Your task to perform on an android device: stop showing notifications on the lock screen Image 0: 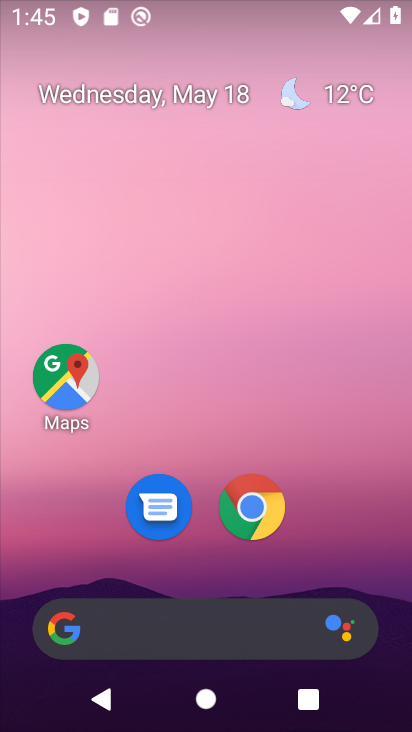
Step 0: click (324, 250)
Your task to perform on an android device: stop showing notifications on the lock screen Image 1: 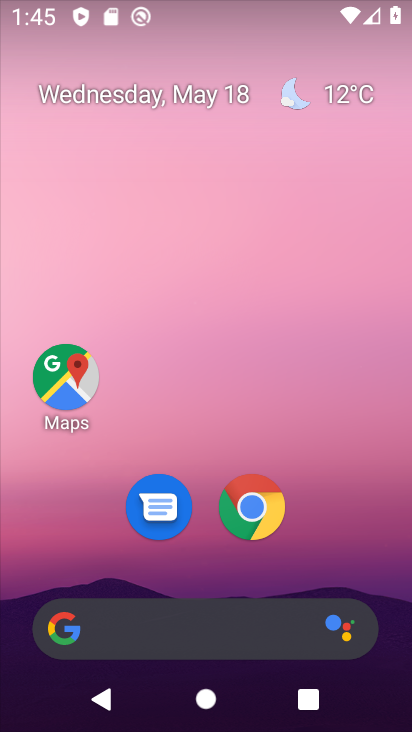
Step 1: click (286, 185)
Your task to perform on an android device: stop showing notifications on the lock screen Image 2: 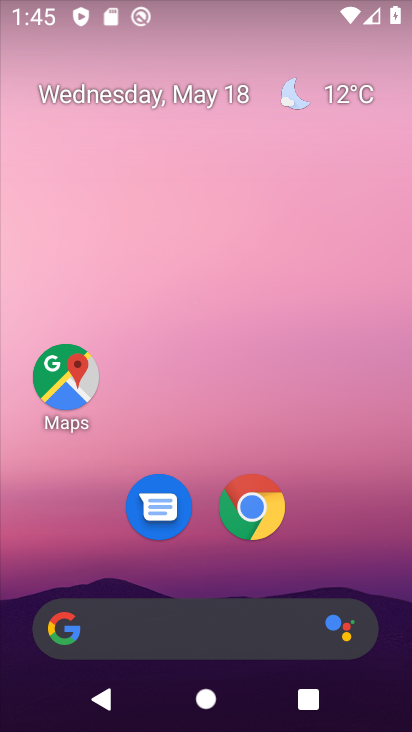
Step 2: drag from (408, 631) to (368, 190)
Your task to perform on an android device: stop showing notifications on the lock screen Image 3: 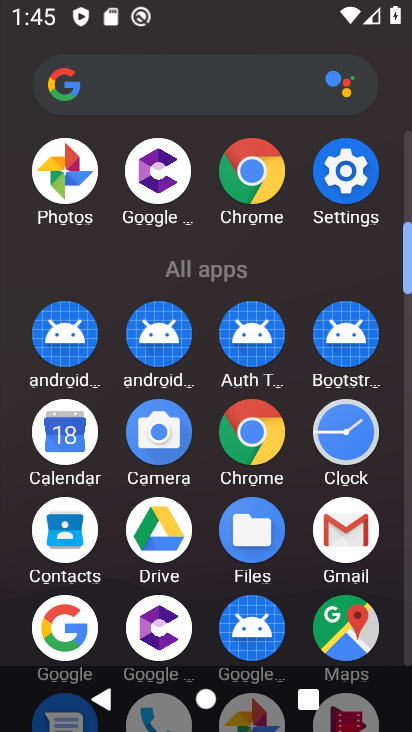
Step 3: click (347, 174)
Your task to perform on an android device: stop showing notifications on the lock screen Image 4: 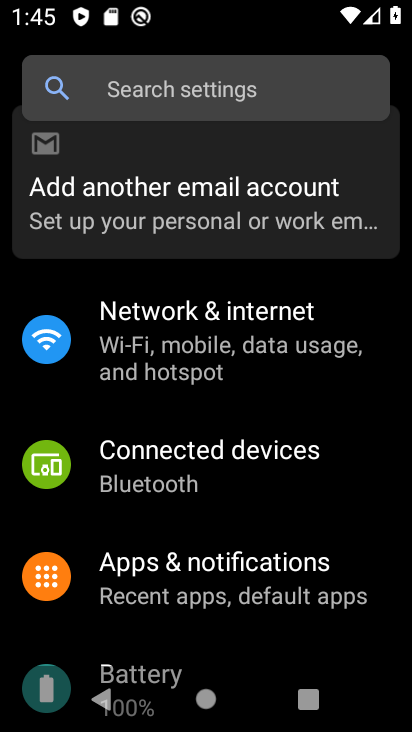
Step 4: drag from (375, 658) to (390, 338)
Your task to perform on an android device: stop showing notifications on the lock screen Image 5: 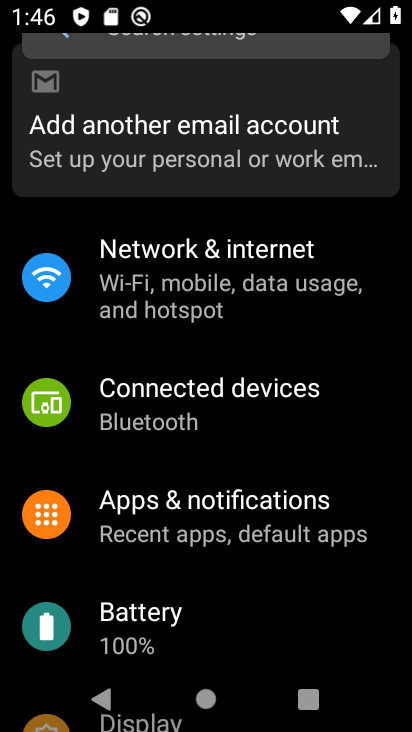
Step 5: drag from (363, 578) to (353, 346)
Your task to perform on an android device: stop showing notifications on the lock screen Image 6: 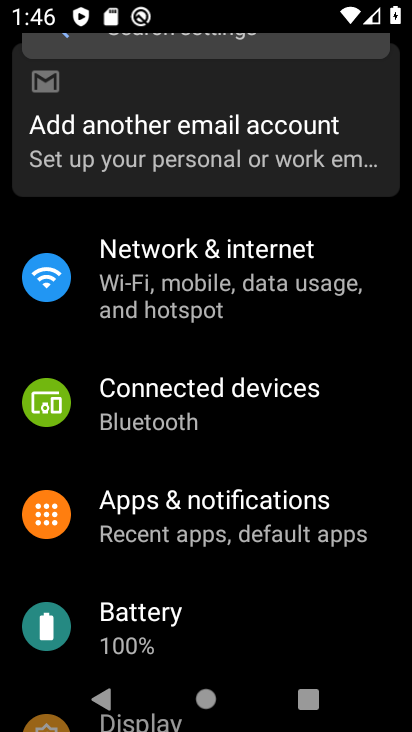
Step 6: drag from (365, 587) to (366, 332)
Your task to perform on an android device: stop showing notifications on the lock screen Image 7: 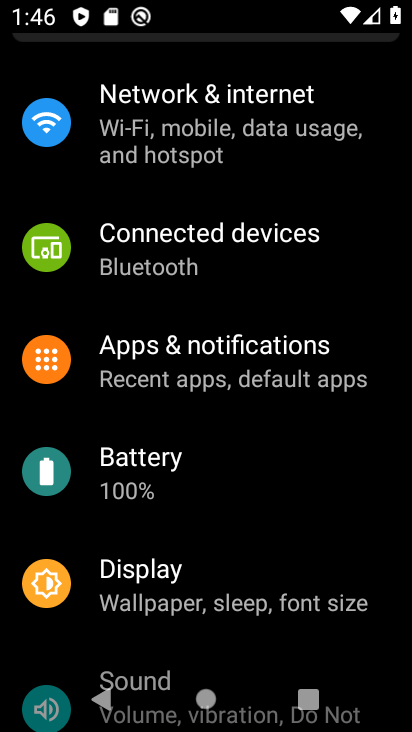
Step 7: drag from (371, 478) to (362, 350)
Your task to perform on an android device: stop showing notifications on the lock screen Image 8: 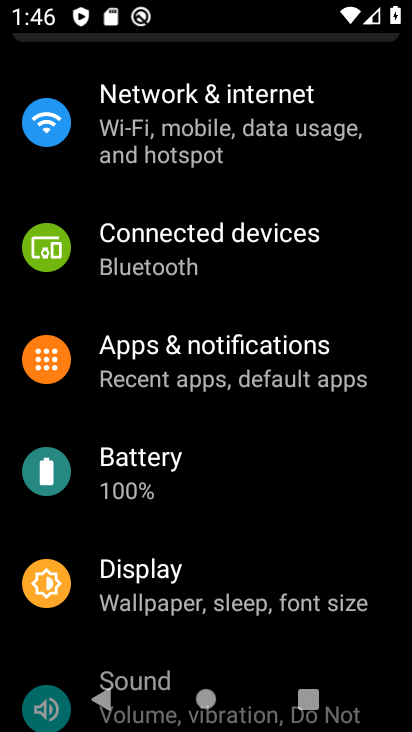
Step 8: drag from (380, 564) to (369, 346)
Your task to perform on an android device: stop showing notifications on the lock screen Image 9: 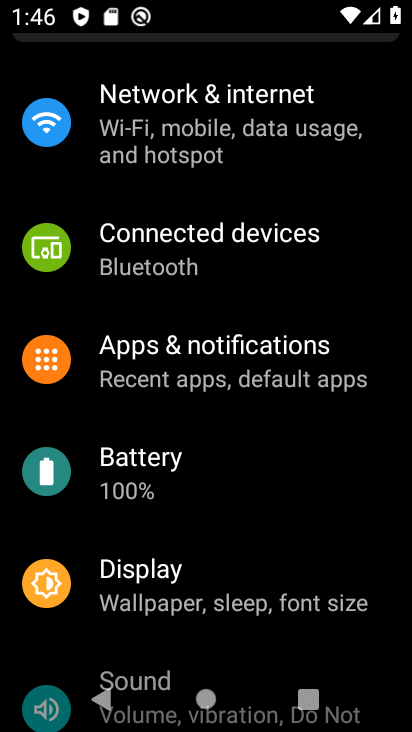
Step 9: drag from (387, 620) to (369, 307)
Your task to perform on an android device: stop showing notifications on the lock screen Image 10: 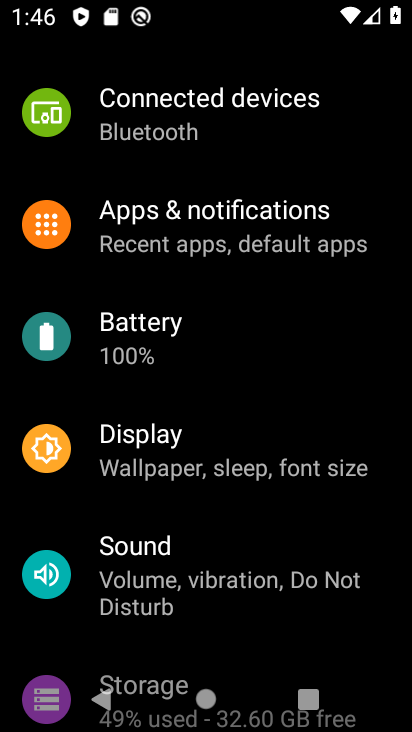
Step 10: drag from (378, 651) to (362, 338)
Your task to perform on an android device: stop showing notifications on the lock screen Image 11: 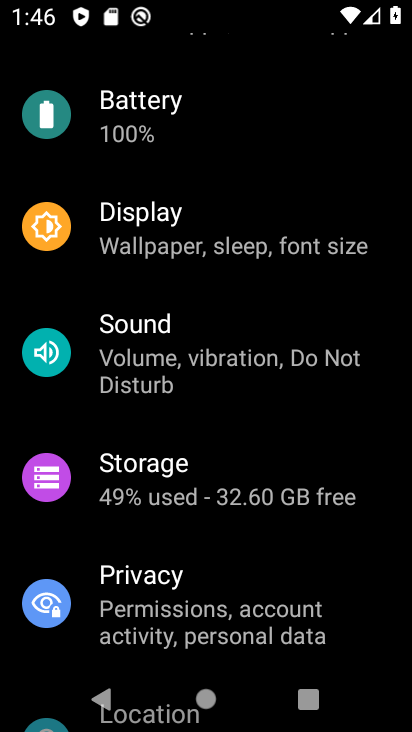
Step 11: drag from (353, 568) to (338, 268)
Your task to perform on an android device: stop showing notifications on the lock screen Image 12: 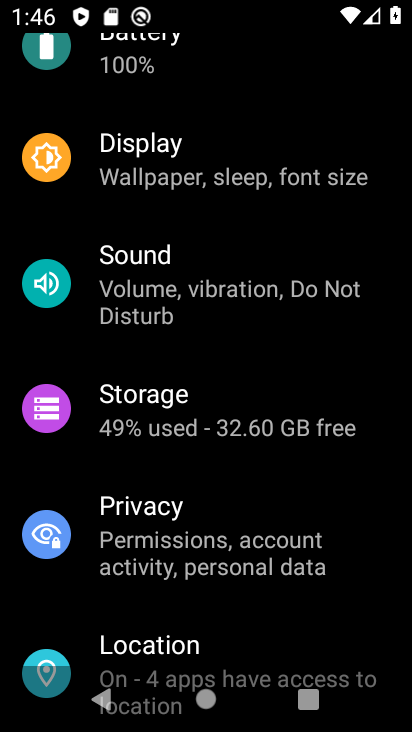
Step 12: drag from (254, 155) to (281, 465)
Your task to perform on an android device: stop showing notifications on the lock screen Image 13: 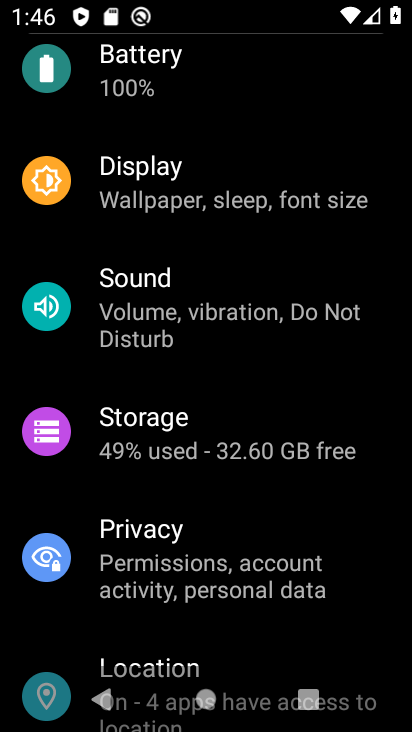
Step 13: drag from (342, 148) to (365, 475)
Your task to perform on an android device: stop showing notifications on the lock screen Image 14: 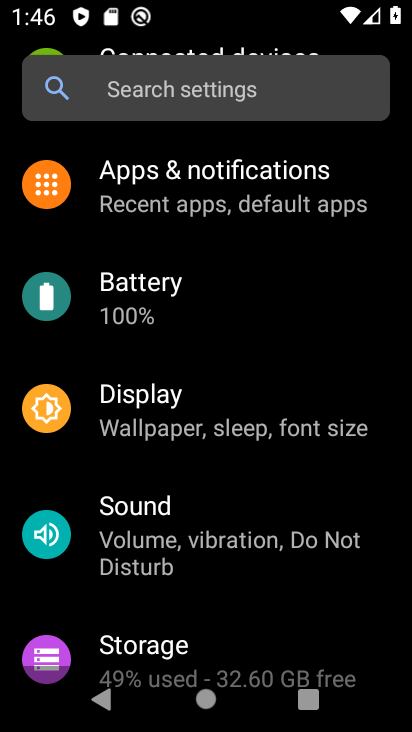
Step 14: click (244, 185)
Your task to perform on an android device: stop showing notifications on the lock screen Image 15: 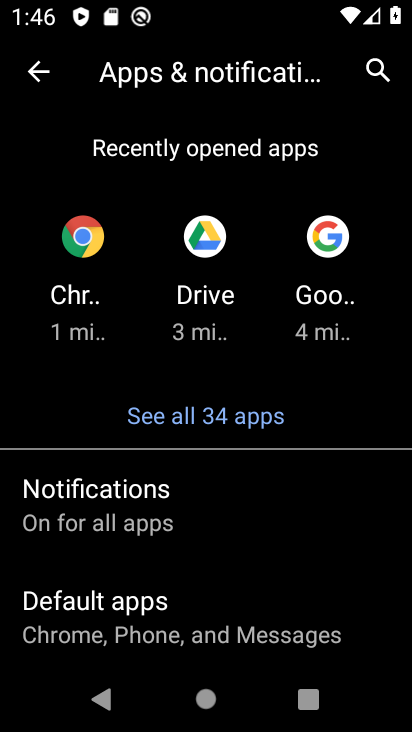
Step 15: click (117, 502)
Your task to perform on an android device: stop showing notifications on the lock screen Image 16: 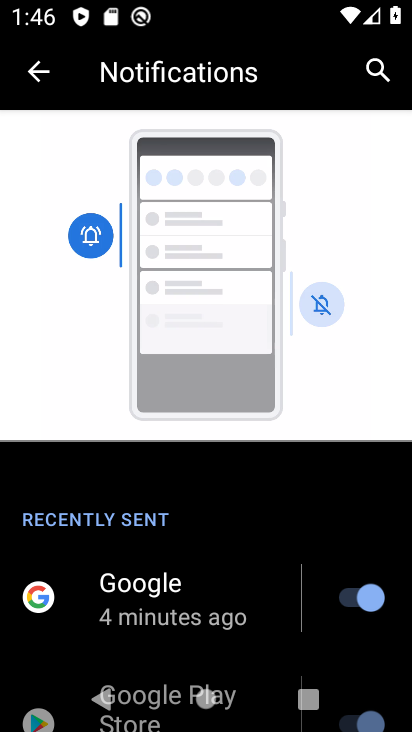
Step 16: drag from (261, 698) to (208, 369)
Your task to perform on an android device: stop showing notifications on the lock screen Image 17: 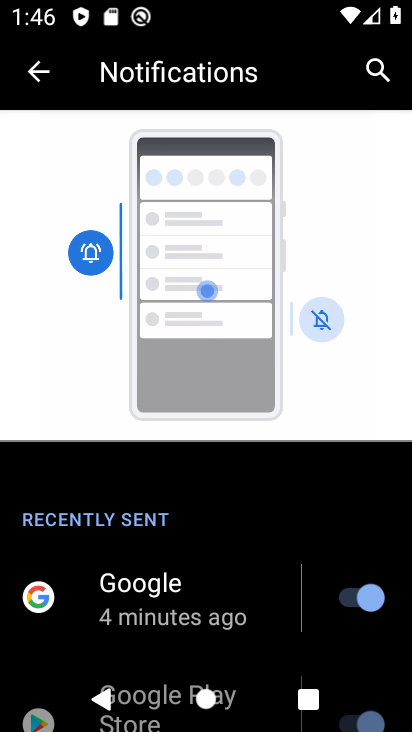
Step 17: drag from (267, 677) to (261, 596)
Your task to perform on an android device: stop showing notifications on the lock screen Image 18: 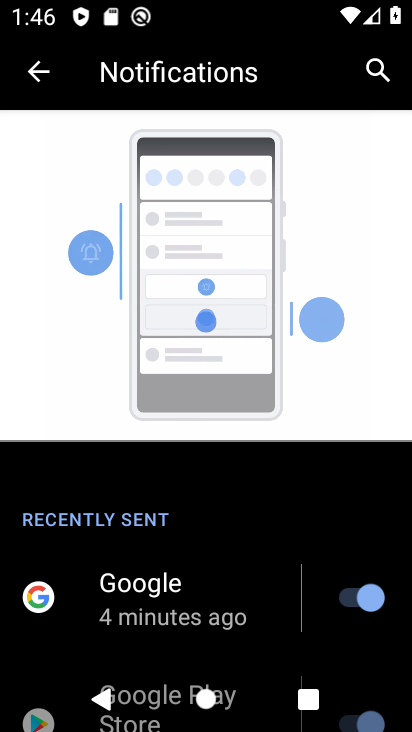
Step 18: drag from (258, 660) to (271, 502)
Your task to perform on an android device: stop showing notifications on the lock screen Image 19: 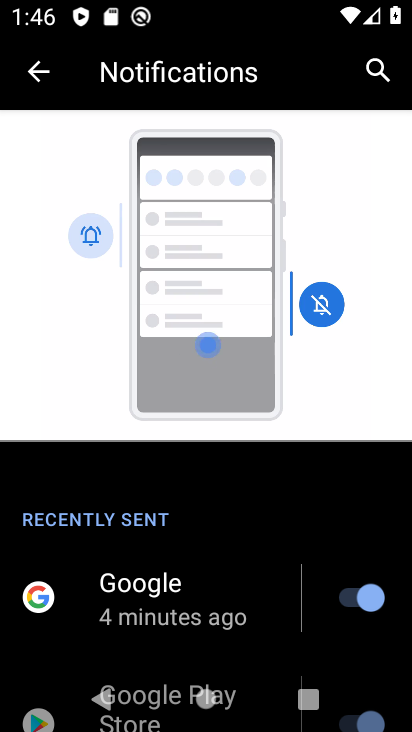
Step 19: drag from (271, 654) to (335, 149)
Your task to perform on an android device: stop showing notifications on the lock screen Image 20: 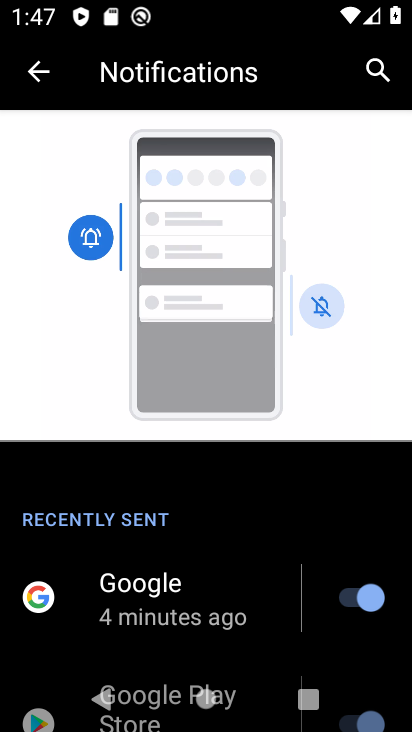
Step 20: drag from (267, 649) to (272, 345)
Your task to perform on an android device: stop showing notifications on the lock screen Image 21: 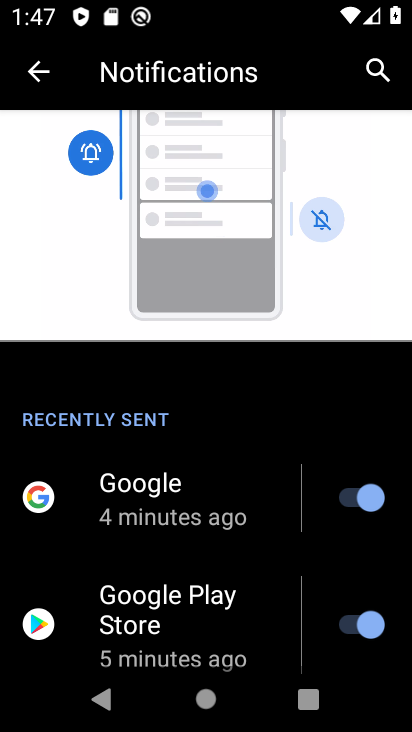
Step 21: drag from (279, 695) to (287, 318)
Your task to perform on an android device: stop showing notifications on the lock screen Image 22: 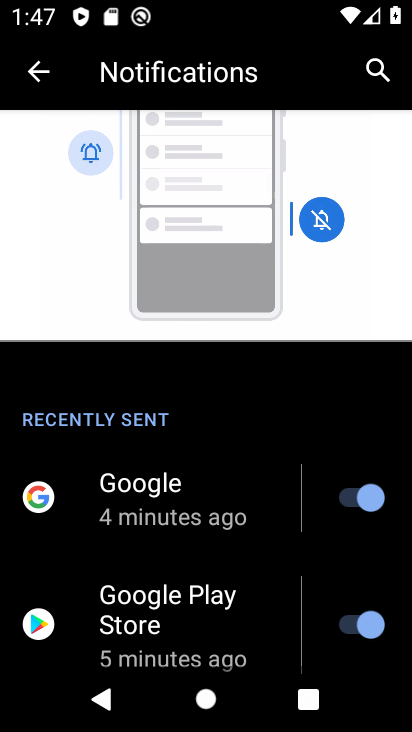
Step 22: drag from (263, 647) to (294, 343)
Your task to perform on an android device: stop showing notifications on the lock screen Image 23: 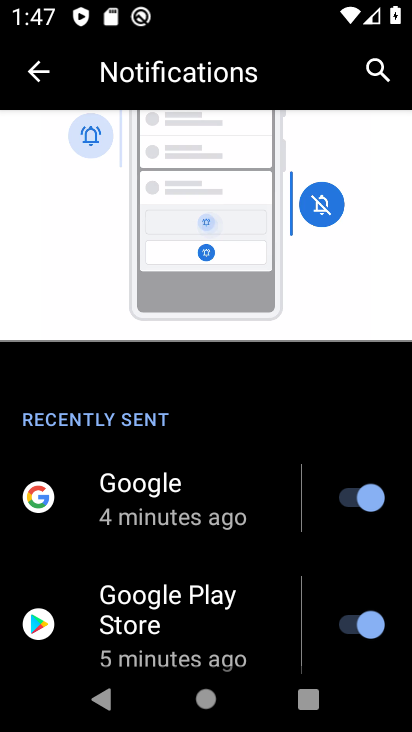
Step 23: drag from (278, 635) to (276, 164)
Your task to perform on an android device: stop showing notifications on the lock screen Image 24: 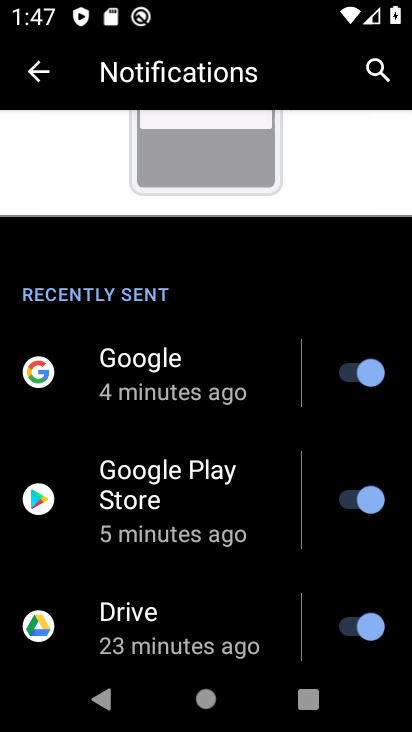
Step 24: drag from (273, 640) to (258, 330)
Your task to perform on an android device: stop showing notifications on the lock screen Image 25: 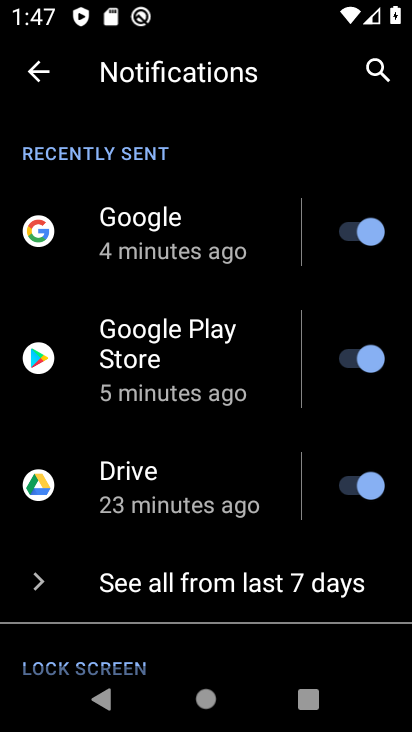
Step 25: drag from (267, 536) to (279, 307)
Your task to perform on an android device: stop showing notifications on the lock screen Image 26: 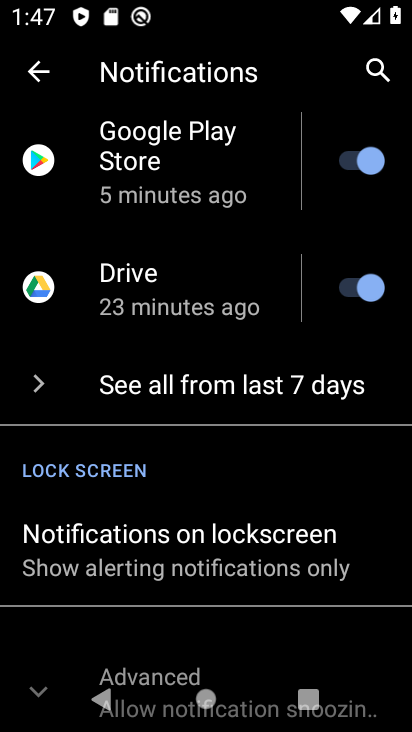
Step 26: click (177, 544)
Your task to perform on an android device: stop showing notifications on the lock screen Image 27: 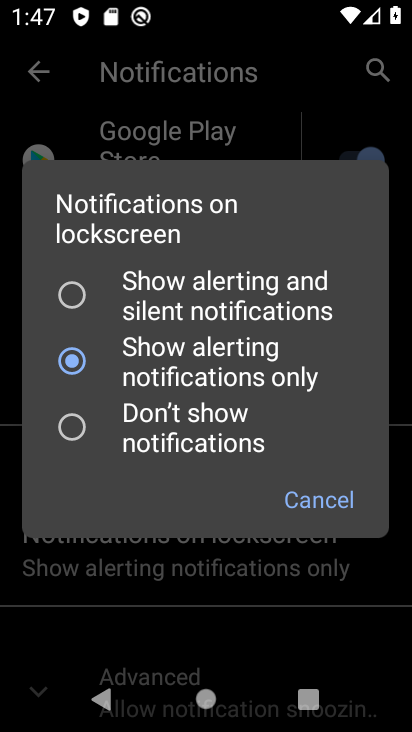
Step 27: click (66, 431)
Your task to perform on an android device: stop showing notifications on the lock screen Image 28: 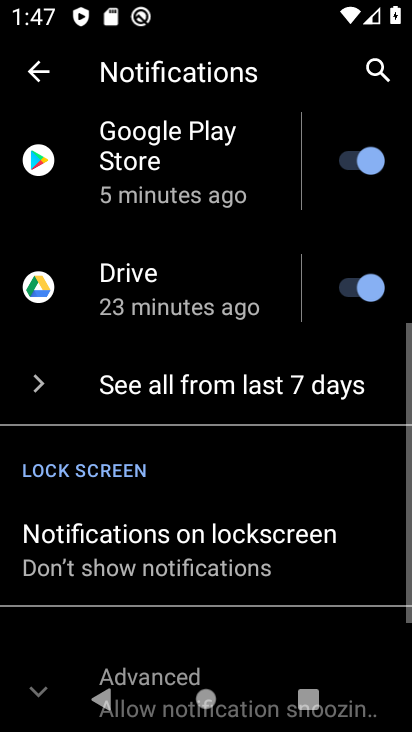
Step 28: task complete